Your task to perform on an android device: remove spam from my inbox in the gmail app Image 0: 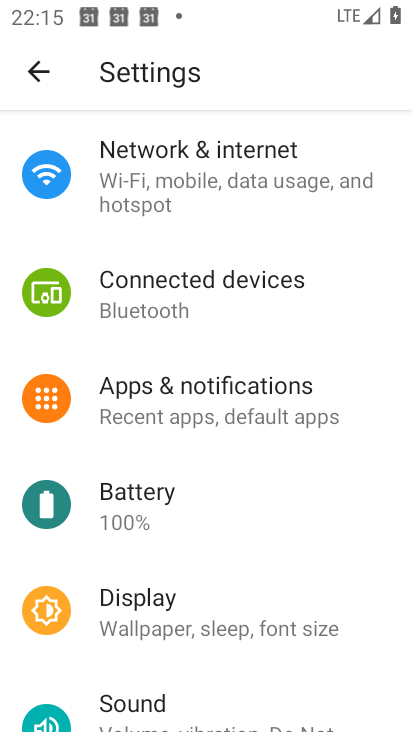
Step 0: press home button
Your task to perform on an android device: remove spam from my inbox in the gmail app Image 1: 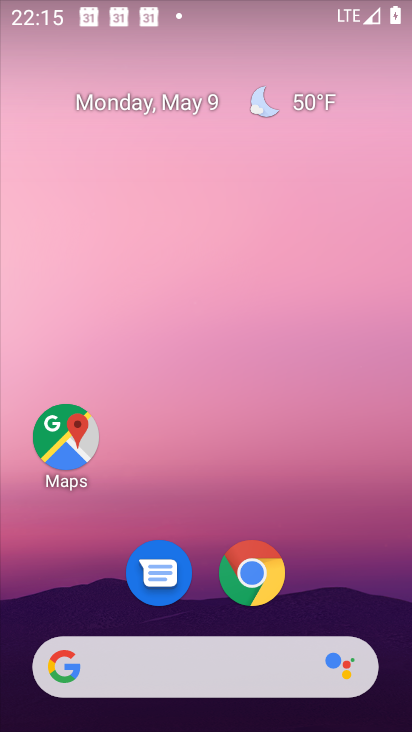
Step 1: drag from (355, 601) to (335, 103)
Your task to perform on an android device: remove spam from my inbox in the gmail app Image 2: 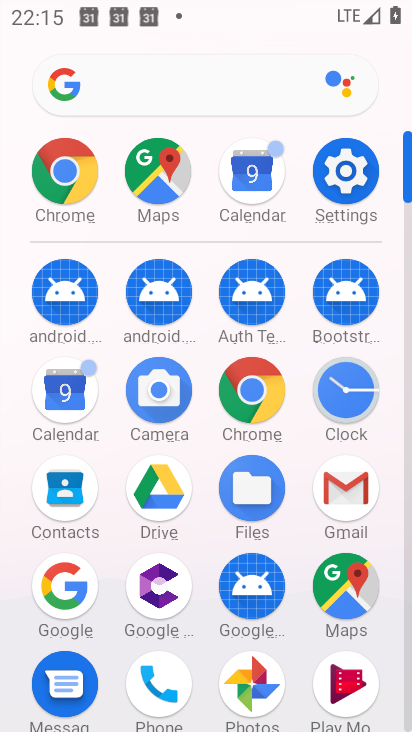
Step 2: click (344, 501)
Your task to perform on an android device: remove spam from my inbox in the gmail app Image 3: 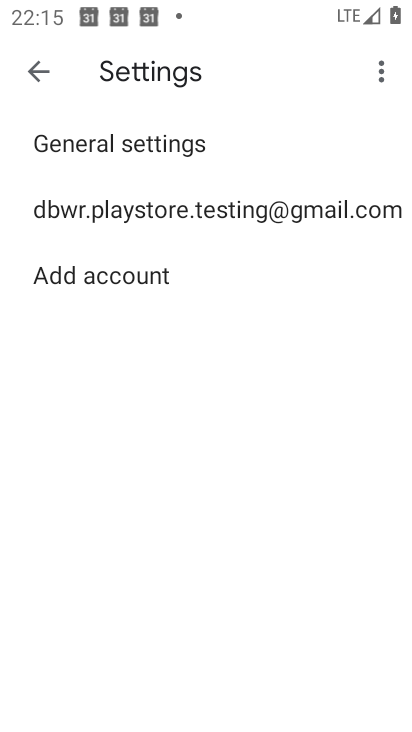
Step 3: click (41, 68)
Your task to perform on an android device: remove spam from my inbox in the gmail app Image 4: 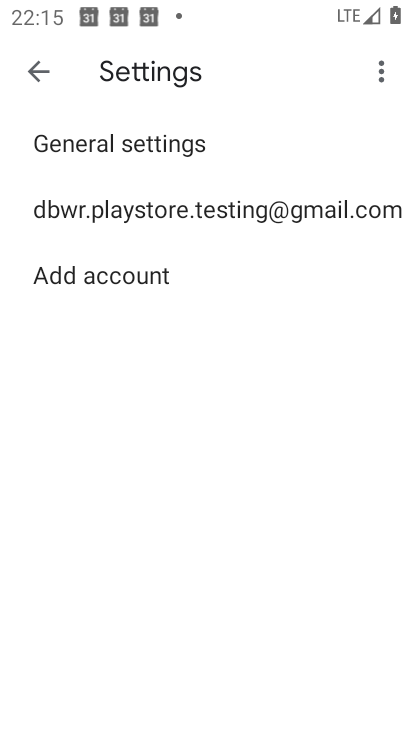
Step 4: click (41, 67)
Your task to perform on an android device: remove spam from my inbox in the gmail app Image 5: 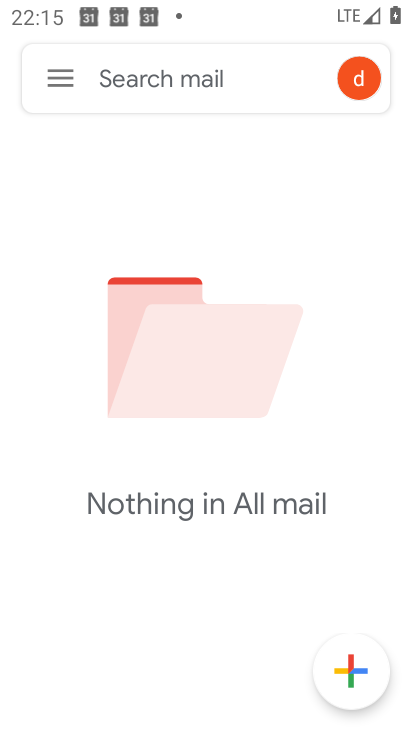
Step 5: click (47, 66)
Your task to perform on an android device: remove spam from my inbox in the gmail app Image 6: 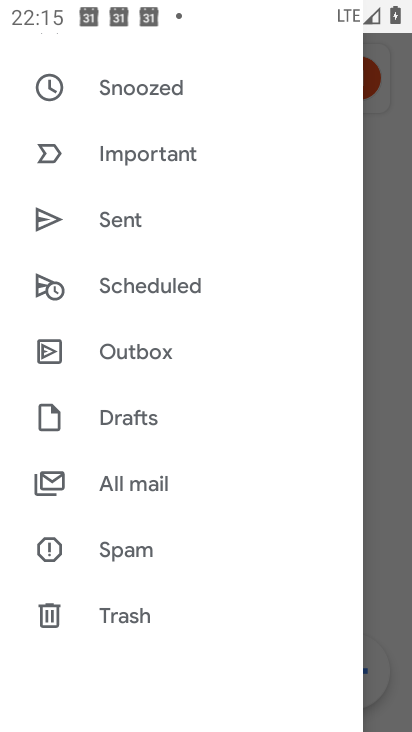
Step 6: click (142, 553)
Your task to perform on an android device: remove spam from my inbox in the gmail app Image 7: 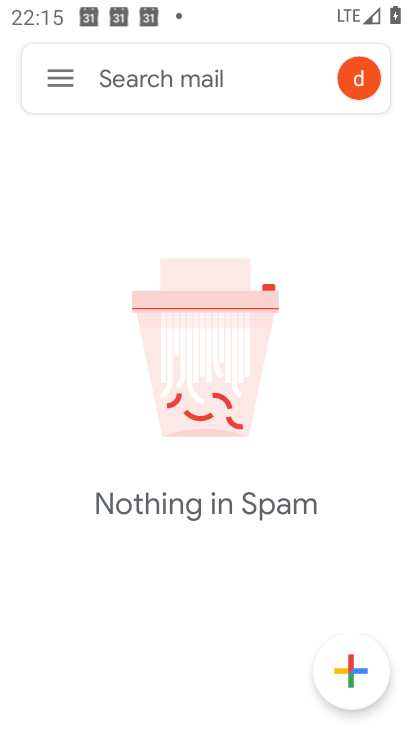
Step 7: task complete